Your task to perform on an android device: open sync settings in chrome Image 0: 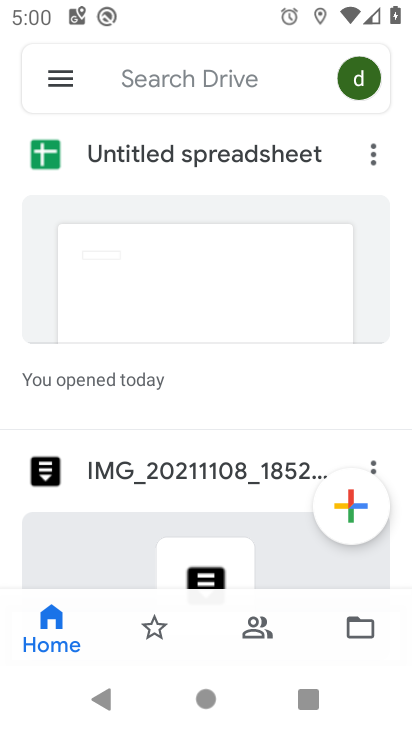
Step 0: press home button
Your task to perform on an android device: open sync settings in chrome Image 1: 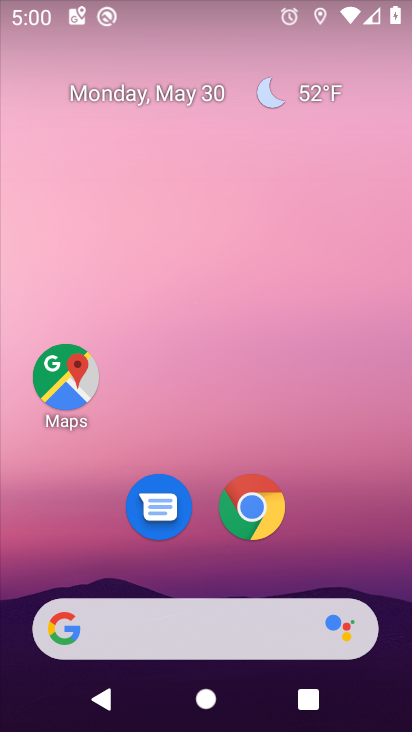
Step 1: click (235, 528)
Your task to perform on an android device: open sync settings in chrome Image 2: 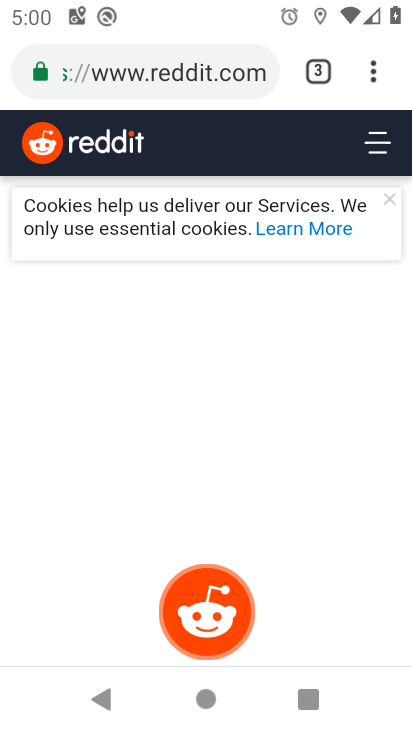
Step 2: click (381, 64)
Your task to perform on an android device: open sync settings in chrome Image 3: 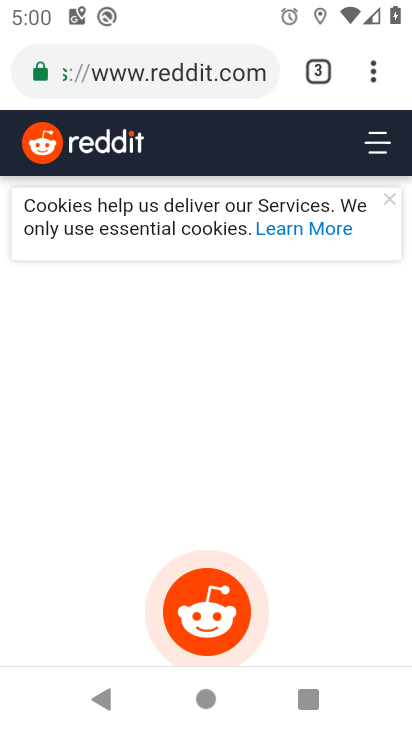
Step 3: drag from (381, 64) to (162, 503)
Your task to perform on an android device: open sync settings in chrome Image 4: 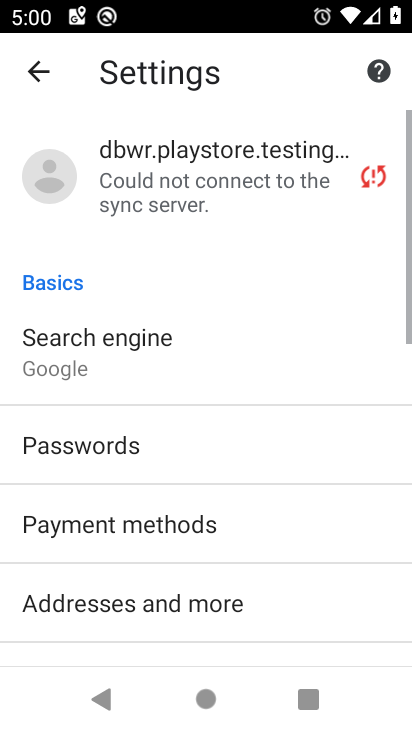
Step 4: click (180, 185)
Your task to perform on an android device: open sync settings in chrome Image 5: 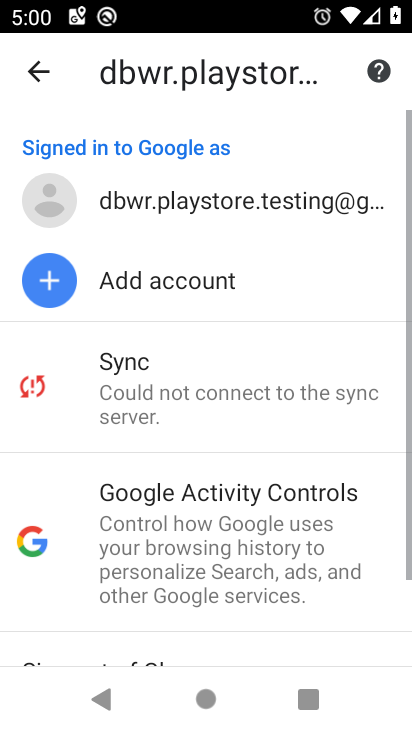
Step 5: click (109, 429)
Your task to perform on an android device: open sync settings in chrome Image 6: 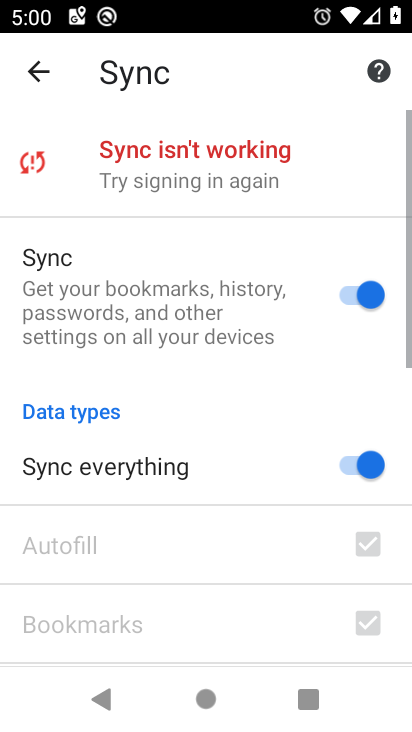
Step 6: task complete